Your task to perform on an android device: Open Chrome and go to settings Image 0: 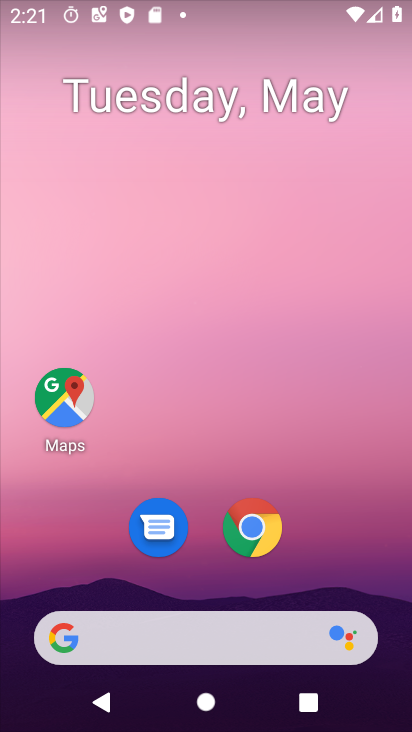
Step 0: press home button
Your task to perform on an android device: Open Chrome and go to settings Image 1: 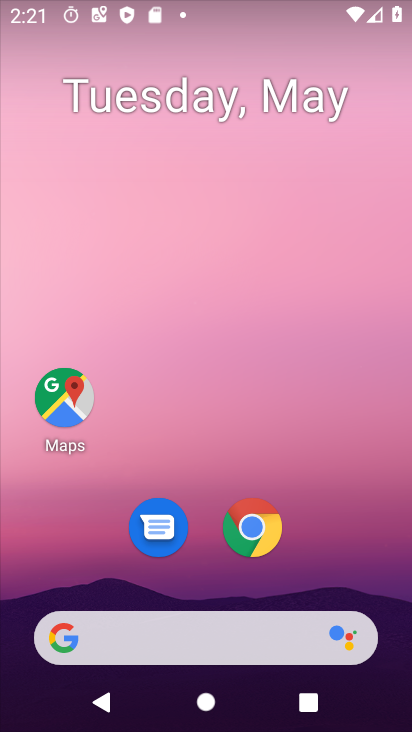
Step 1: drag from (288, 669) to (147, 242)
Your task to perform on an android device: Open Chrome and go to settings Image 2: 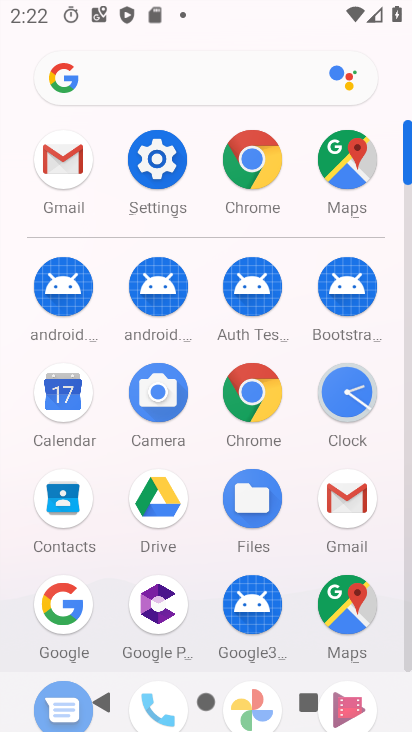
Step 2: click (265, 159)
Your task to perform on an android device: Open Chrome and go to settings Image 3: 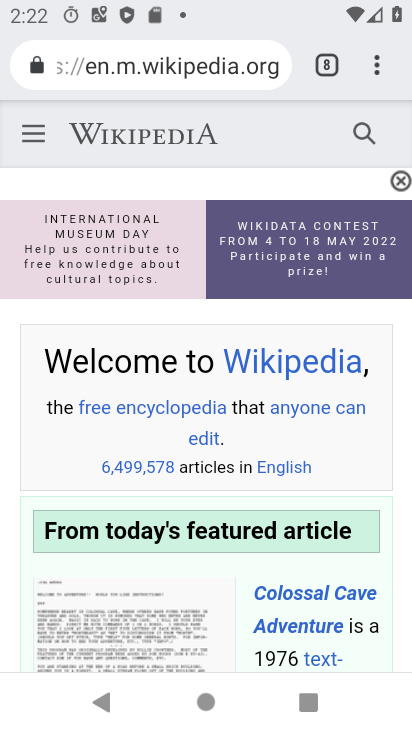
Step 3: click (360, 83)
Your task to perform on an android device: Open Chrome and go to settings Image 4: 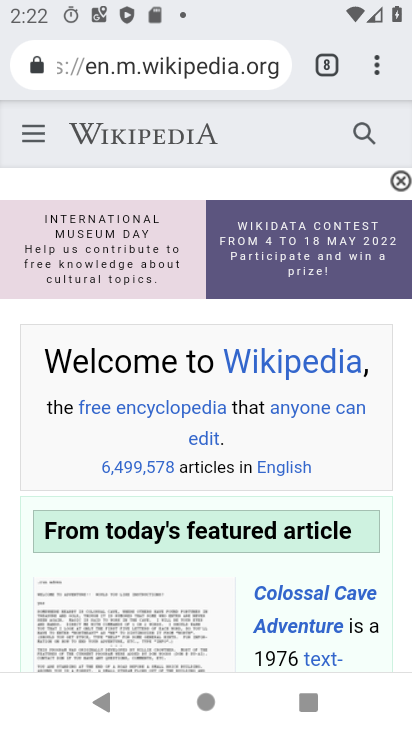
Step 4: click (368, 85)
Your task to perform on an android device: Open Chrome and go to settings Image 5: 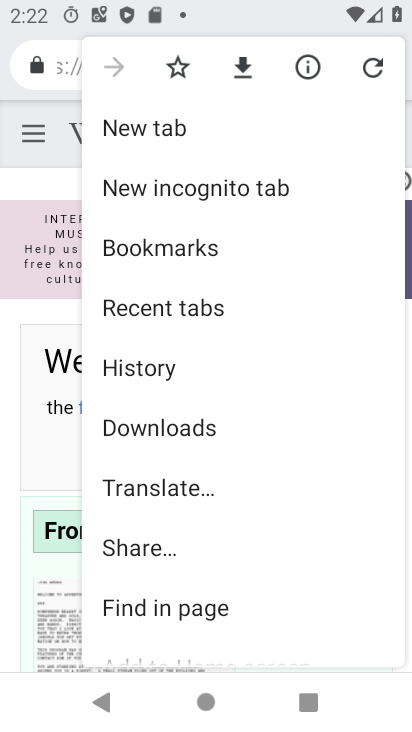
Step 5: drag from (206, 538) to (221, 330)
Your task to perform on an android device: Open Chrome and go to settings Image 6: 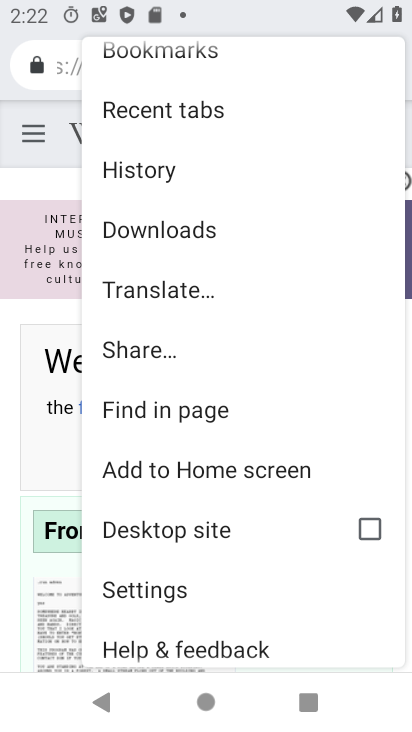
Step 6: click (173, 589)
Your task to perform on an android device: Open Chrome and go to settings Image 7: 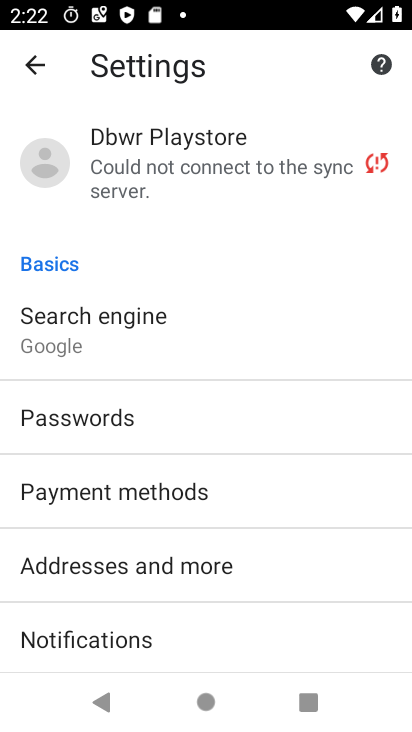
Step 7: task complete